Your task to perform on an android device: turn on showing notifications on the lock screen Image 0: 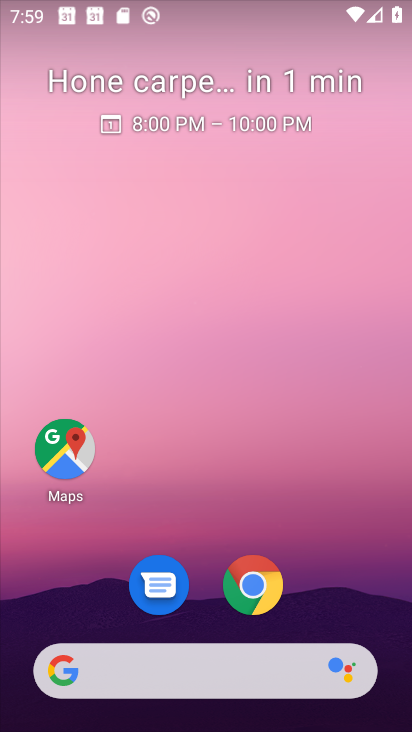
Step 0: drag from (324, 556) to (300, 54)
Your task to perform on an android device: turn on showing notifications on the lock screen Image 1: 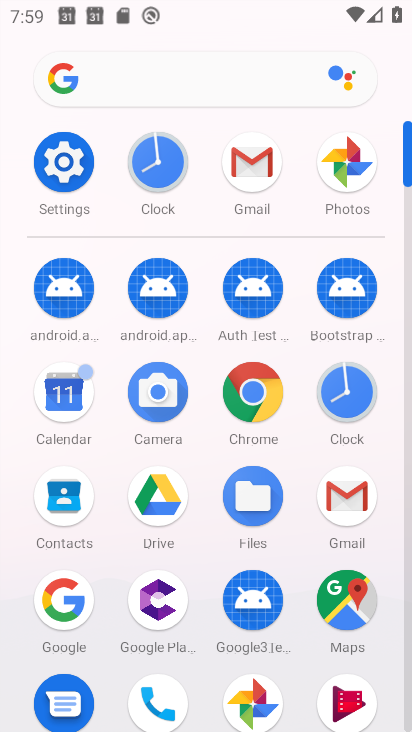
Step 1: click (84, 160)
Your task to perform on an android device: turn on showing notifications on the lock screen Image 2: 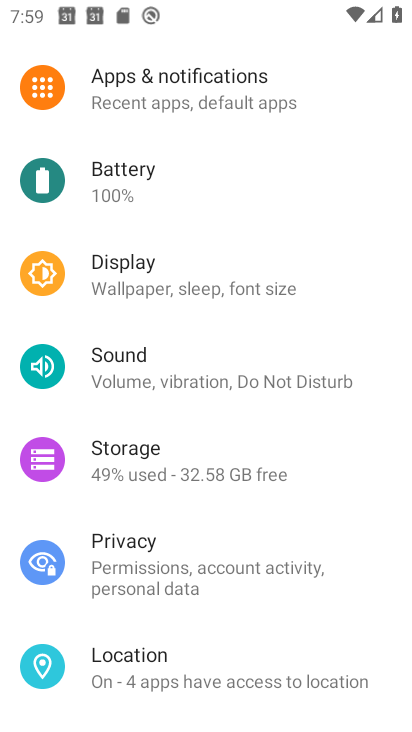
Step 2: click (263, 84)
Your task to perform on an android device: turn on showing notifications on the lock screen Image 3: 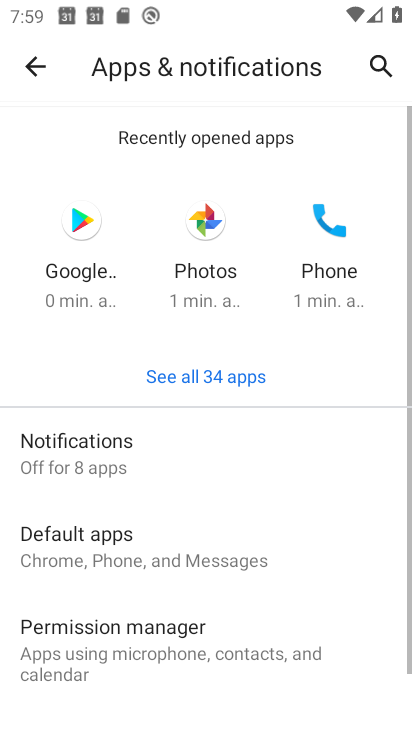
Step 3: click (103, 452)
Your task to perform on an android device: turn on showing notifications on the lock screen Image 4: 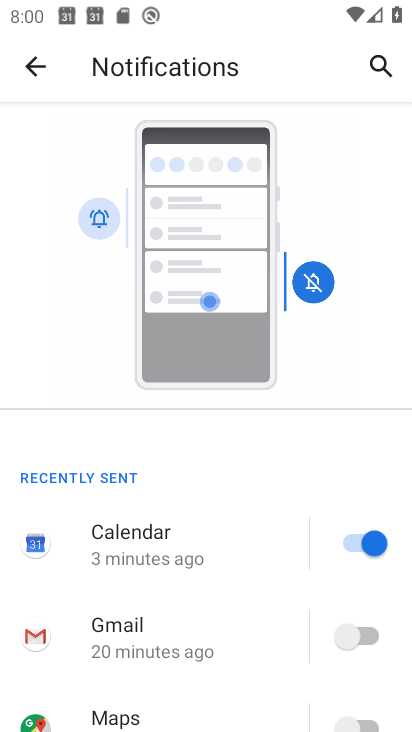
Step 4: drag from (204, 648) to (251, 216)
Your task to perform on an android device: turn on showing notifications on the lock screen Image 5: 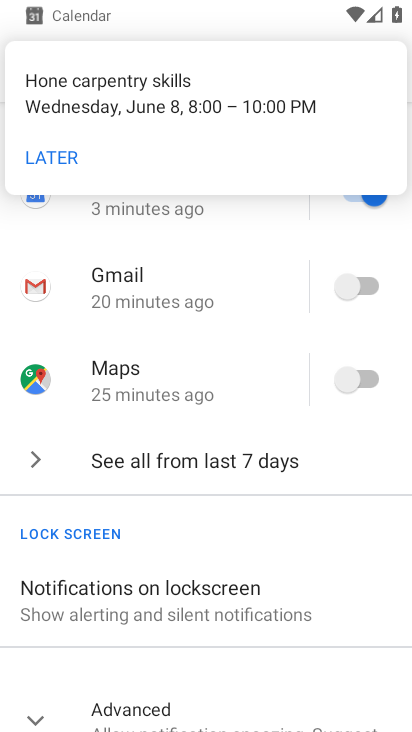
Step 5: click (212, 580)
Your task to perform on an android device: turn on showing notifications on the lock screen Image 6: 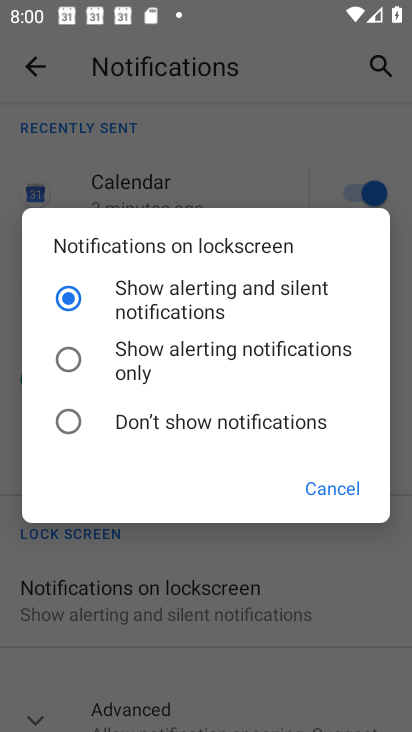
Step 6: click (330, 481)
Your task to perform on an android device: turn on showing notifications on the lock screen Image 7: 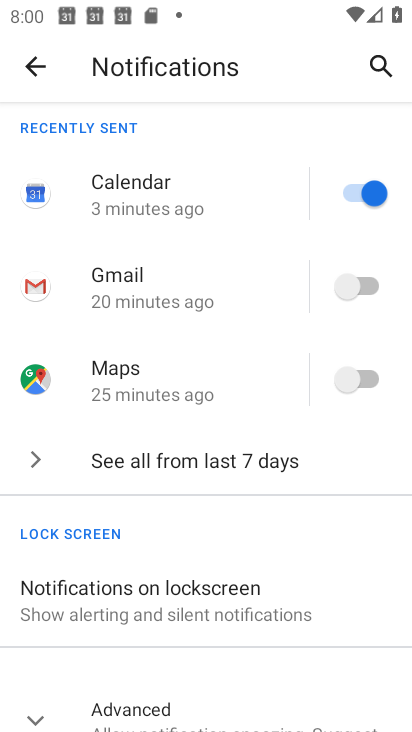
Step 7: task complete